Your task to perform on an android device: Go to network settings Image 0: 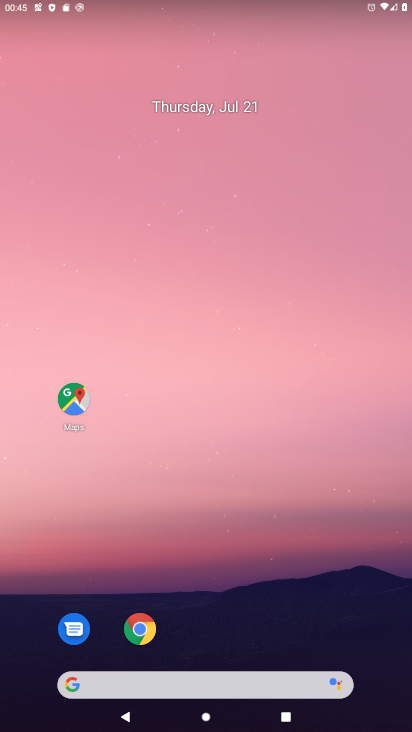
Step 0: drag from (295, 495) to (129, 17)
Your task to perform on an android device: Go to network settings Image 1: 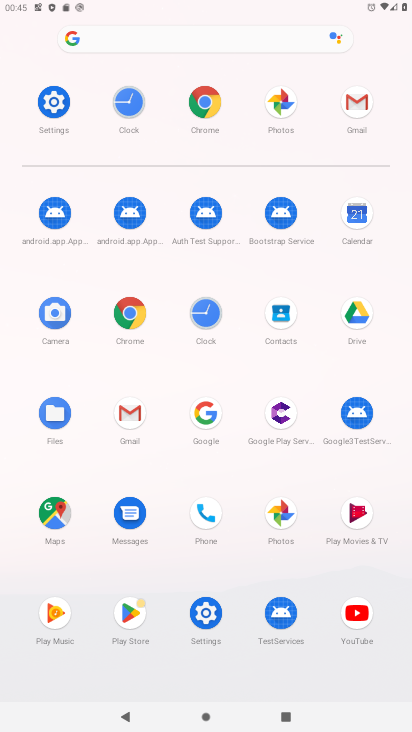
Step 1: click (46, 93)
Your task to perform on an android device: Go to network settings Image 2: 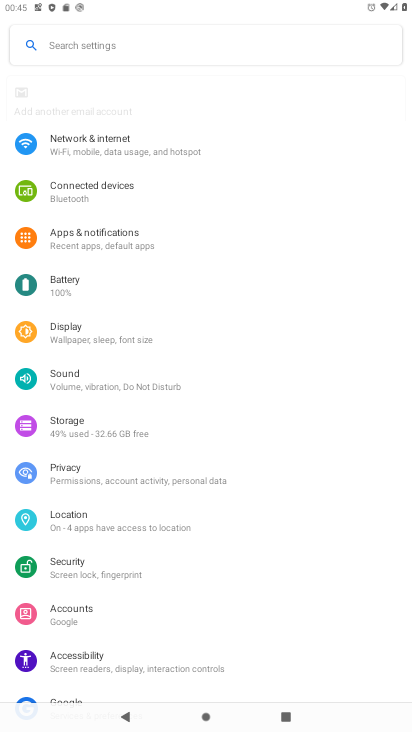
Step 2: click (137, 110)
Your task to perform on an android device: Go to network settings Image 3: 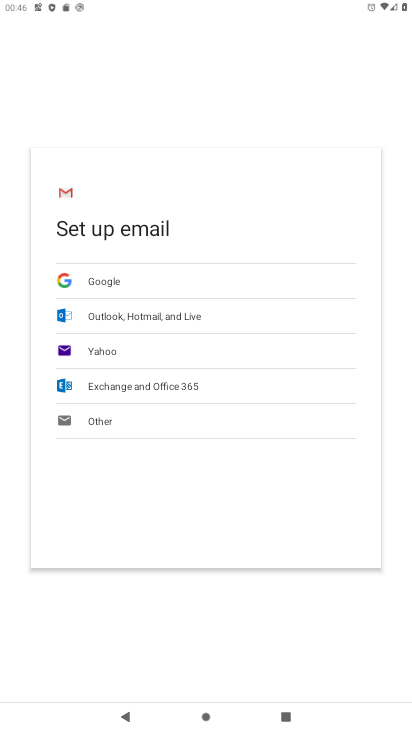
Step 3: press home button
Your task to perform on an android device: Go to network settings Image 4: 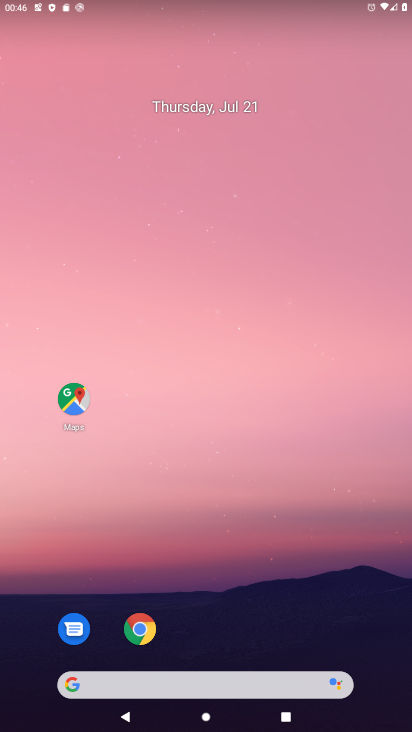
Step 4: drag from (260, 585) to (345, 718)
Your task to perform on an android device: Go to network settings Image 5: 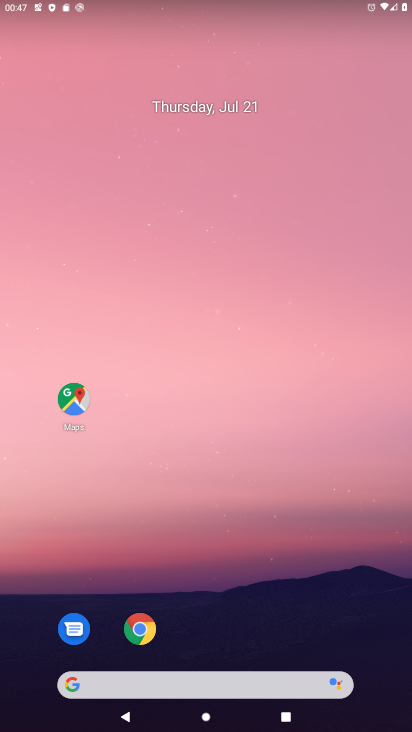
Step 5: drag from (212, 626) to (63, 0)
Your task to perform on an android device: Go to network settings Image 6: 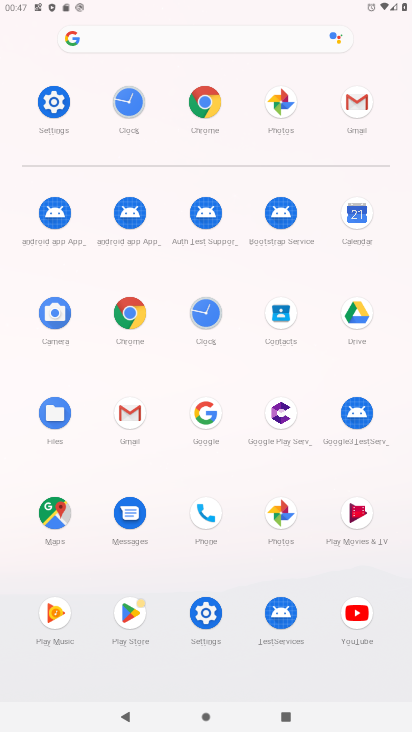
Step 6: click (46, 92)
Your task to perform on an android device: Go to network settings Image 7: 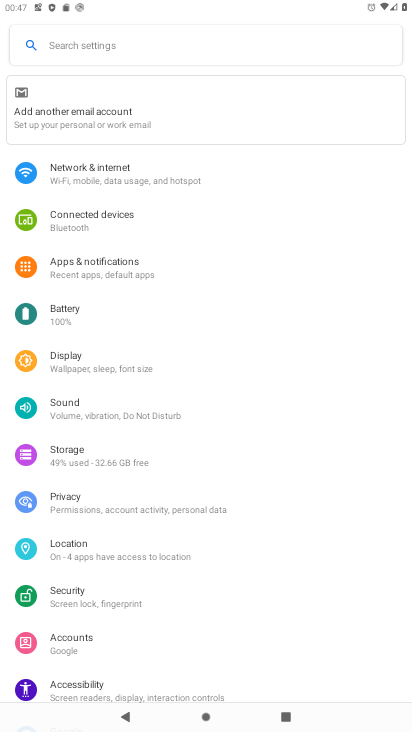
Step 7: click (100, 168)
Your task to perform on an android device: Go to network settings Image 8: 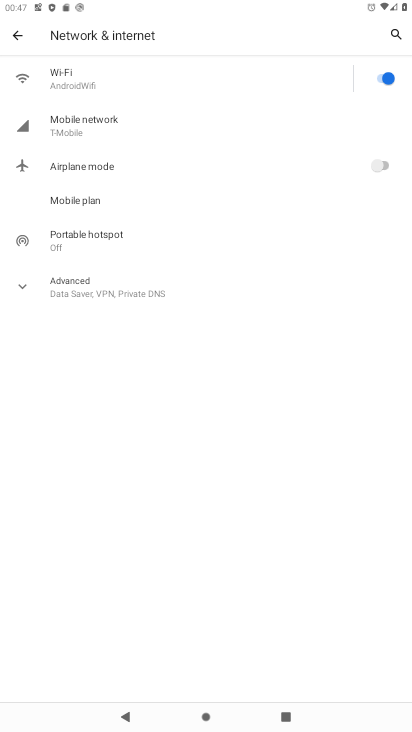
Step 8: task complete